Your task to perform on an android device: Open wifi settings Image 0: 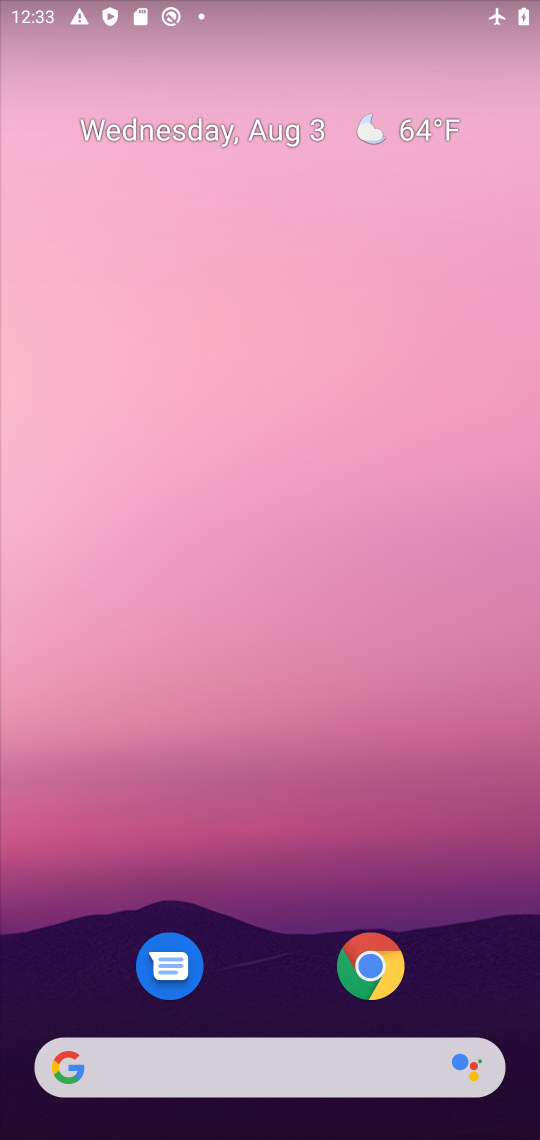
Step 0: drag from (307, 997) to (306, 364)
Your task to perform on an android device: Open wifi settings Image 1: 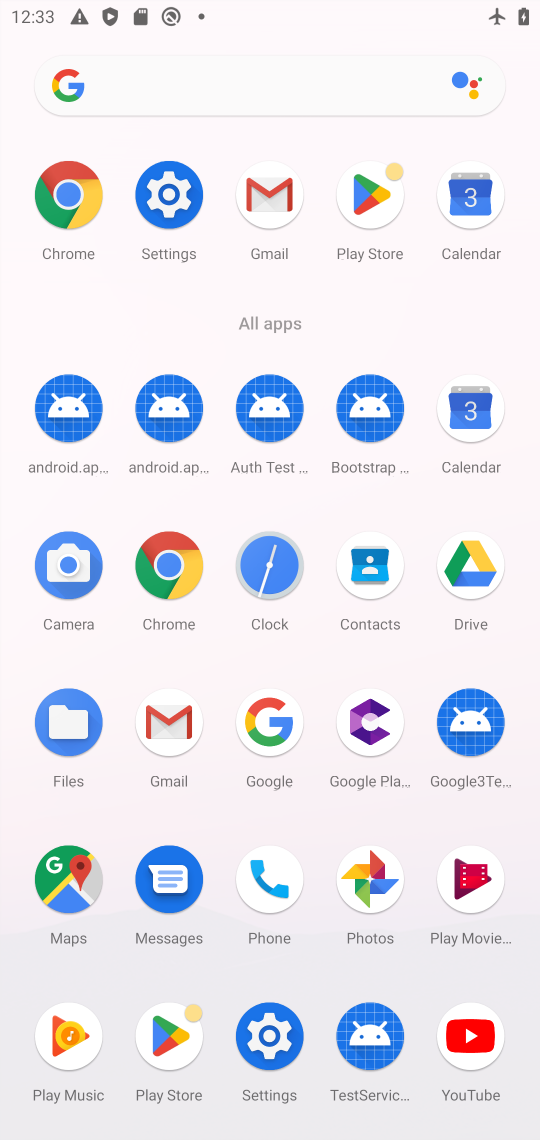
Step 1: click (182, 216)
Your task to perform on an android device: Open wifi settings Image 2: 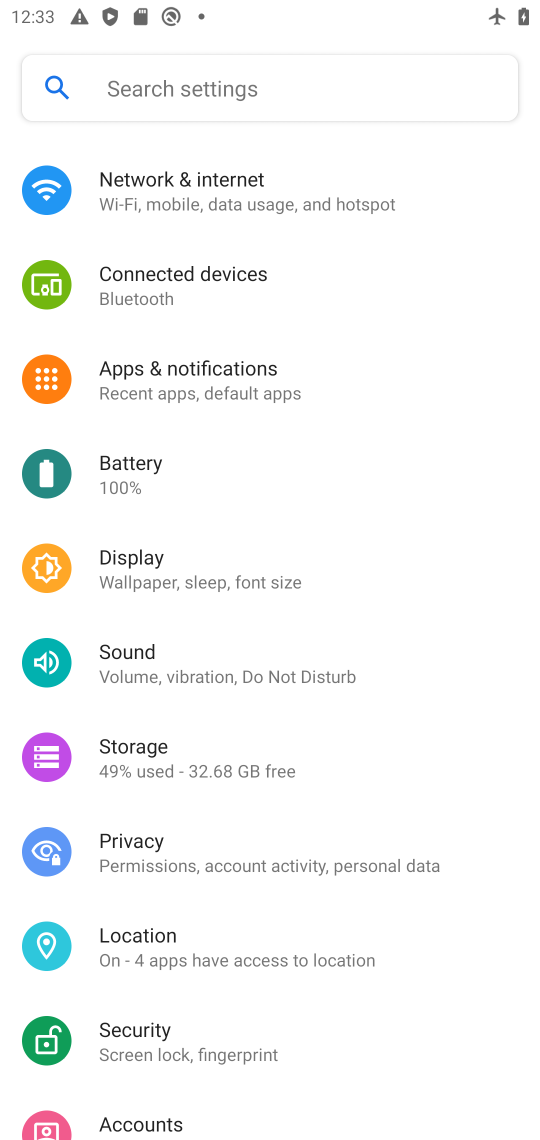
Step 2: click (182, 216)
Your task to perform on an android device: Open wifi settings Image 3: 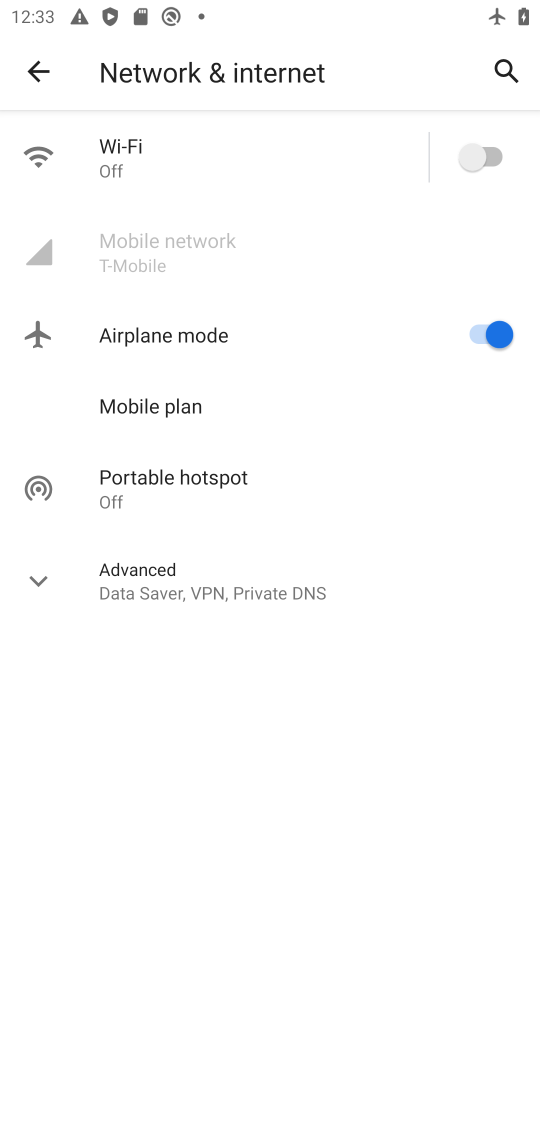
Step 3: click (203, 177)
Your task to perform on an android device: Open wifi settings Image 4: 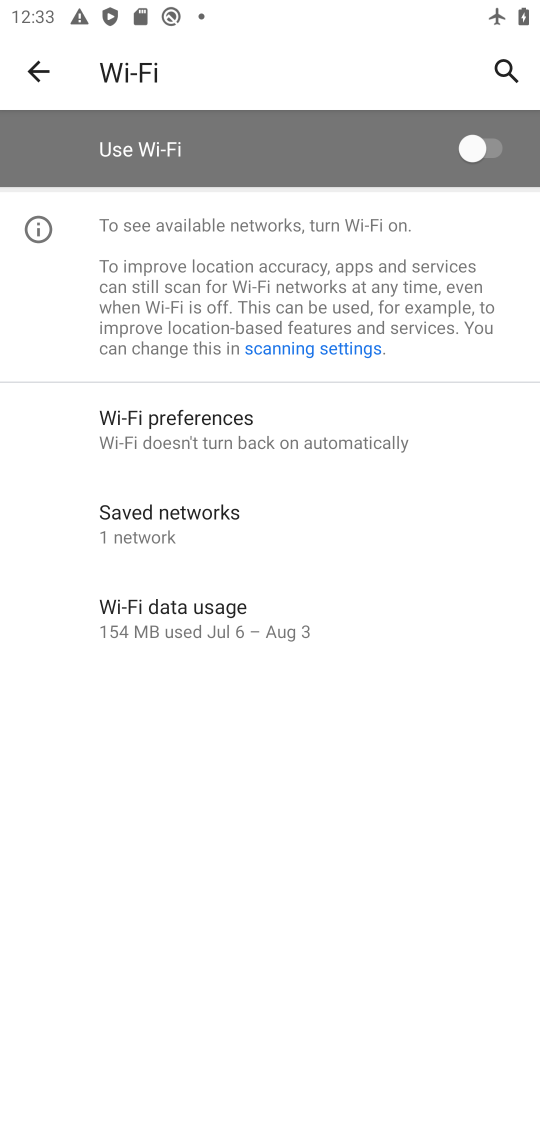
Step 4: task complete